Your task to perform on an android device: manage bookmarks in the chrome app Image 0: 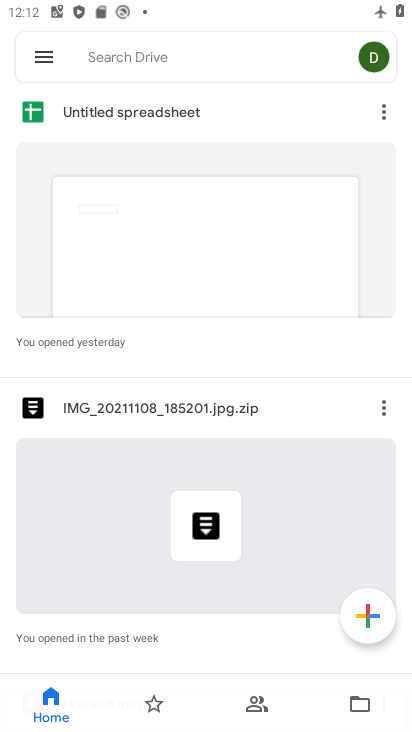
Step 0: press home button
Your task to perform on an android device: manage bookmarks in the chrome app Image 1: 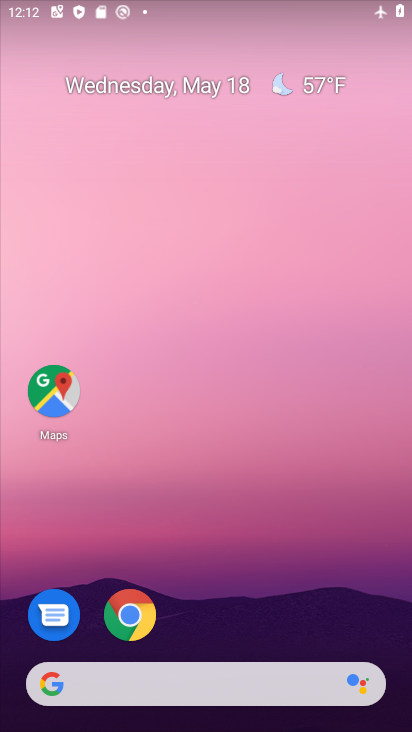
Step 1: drag from (345, 621) to (278, 48)
Your task to perform on an android device: manage bookmarks in the chrome app Image 2: 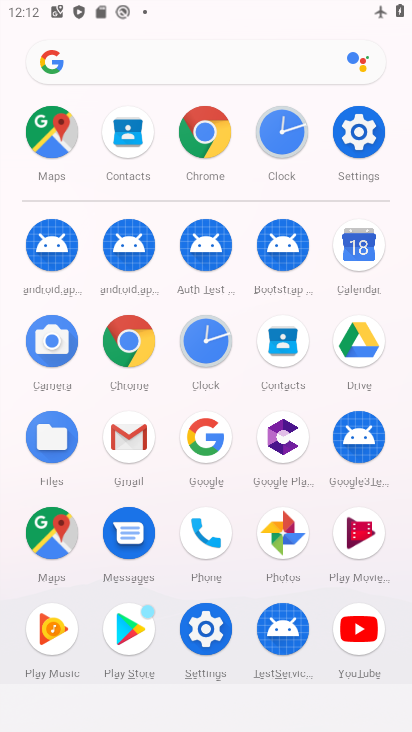
Step 2: click (131, 360)
Your task to perform on an android device: manage bookmarks in the chrome app Image 3: 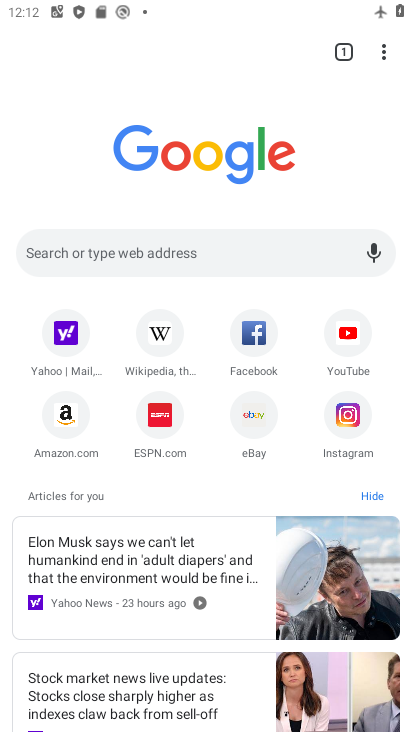
Step 3: task complete